Your task to perform on an android device: snooze an email in the gmail app Image 0: 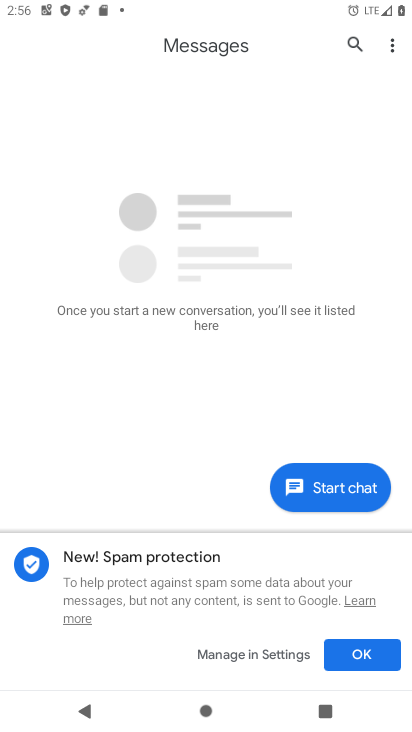
Step 0: press home button
Your task to perform on an android device: snooze an email in the gmail app Image 1: 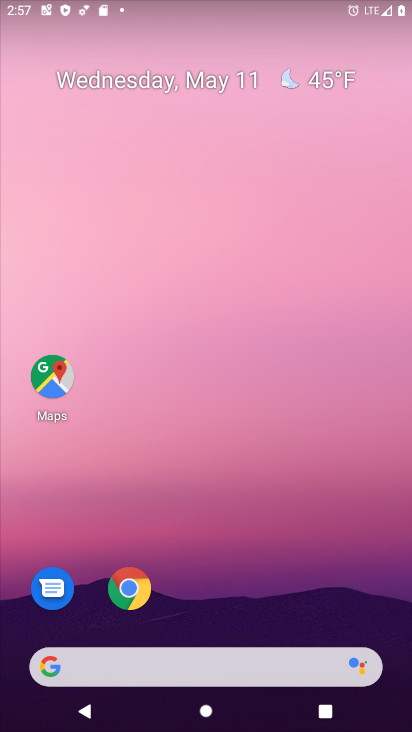
Step 1: drag from (213, 600) to (233, 129)
Your task to perform on an android device: snooze an email in the gmail app Image 2: 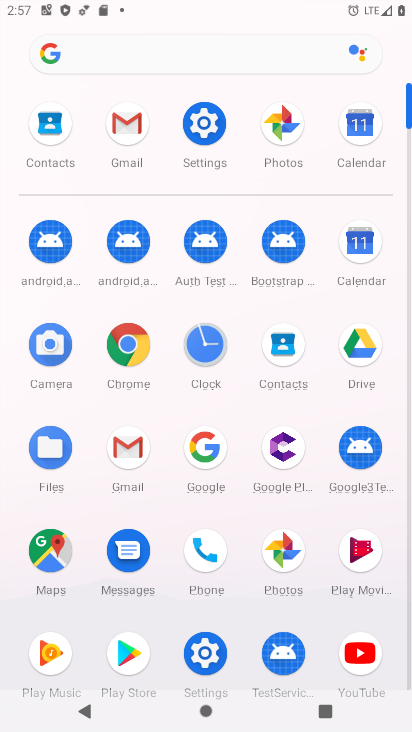
Step 2: click (133, 122)
Your task to perform on an android device: snooze an email in the gmail app Image 3: 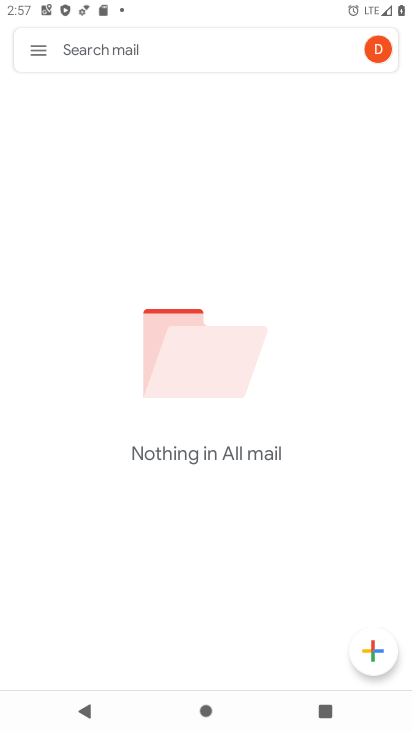
Step 3: click (31, 51)
Your task to perform on an android device: snooze an email in the gmail app Image 4: 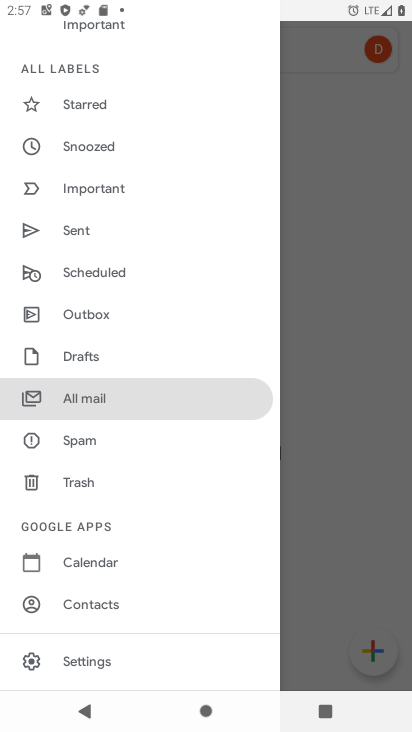
Step 4: click (100, 396)
Your task to perform on an android device: snooze an email in the gmail app Image 5: 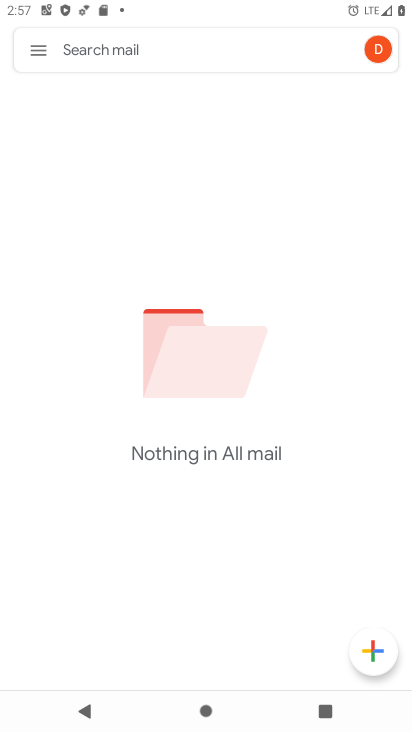
Step 5: task complete